Your task to perform on an android device: Open sound settings Image 0: 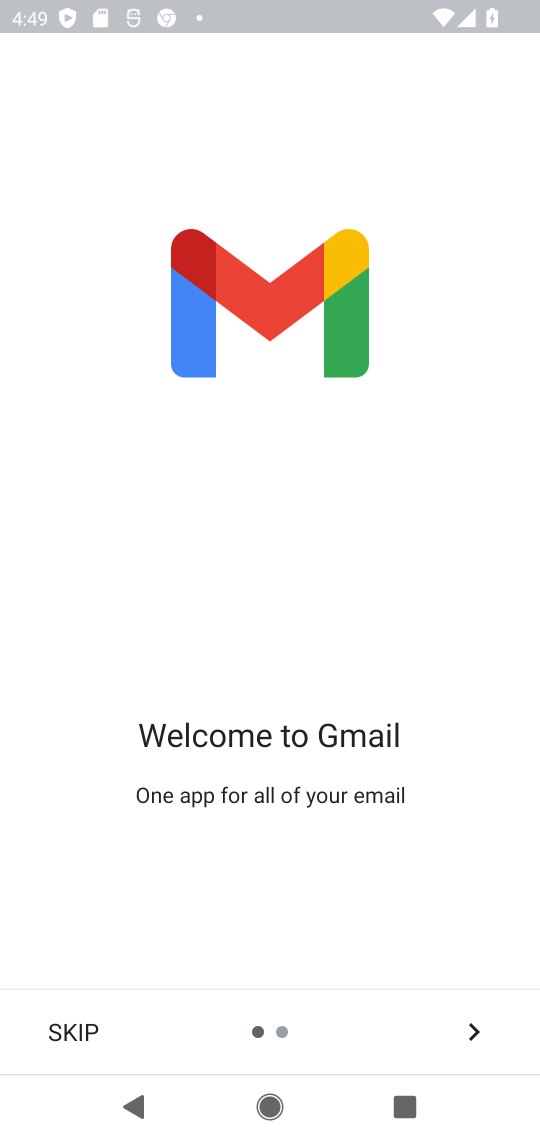
Step 0: press home button
Your task to perform on an android device: Open sound settings Image 1: 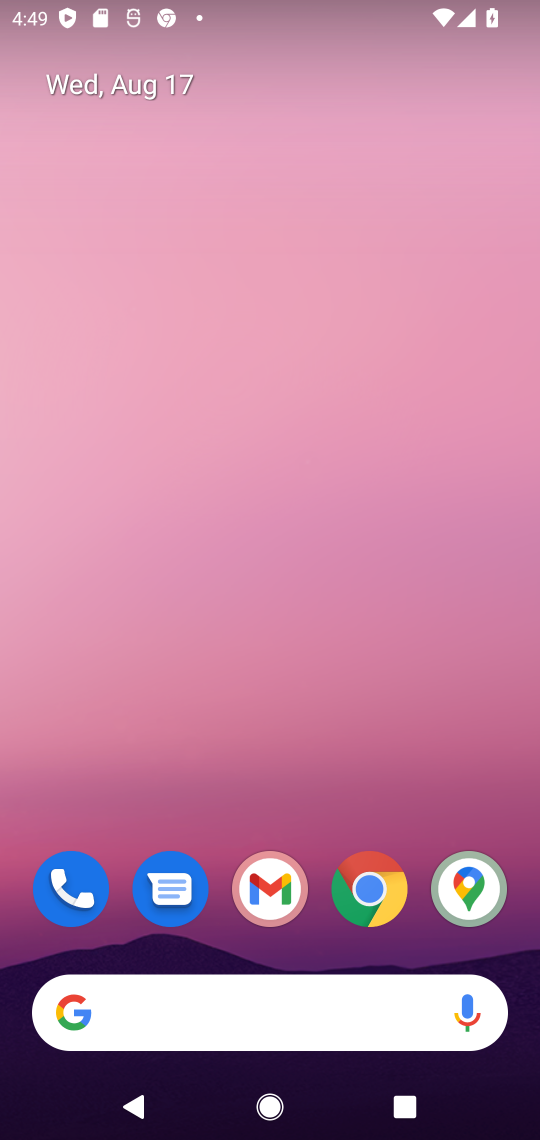
Step 1: drag from (266, 760) to (249, 103)
Your task to perform on an android device: Open sound settings Image 2: 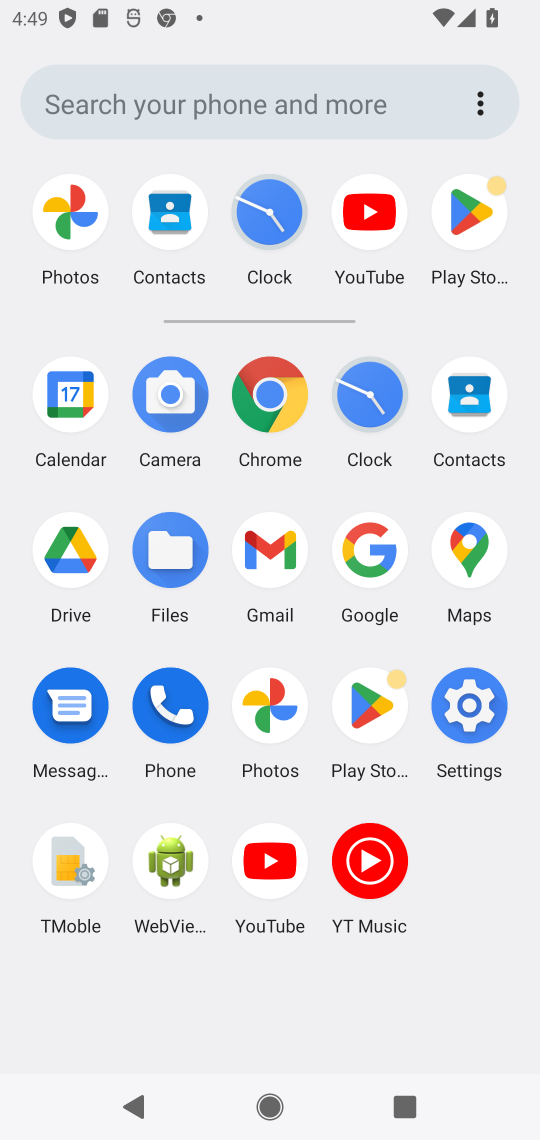
Step 2: click (476, 703)
Your task to perform on an android device: Open sound settings Image 3: 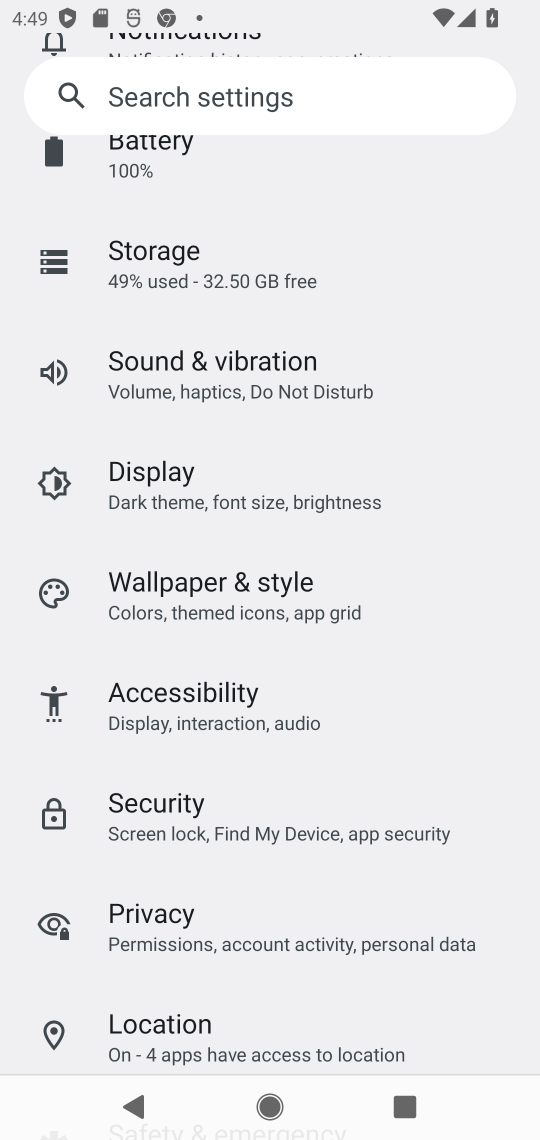
Step 3: click (242, 363)
Your task to perform on an android device: Open sound settings Image 4: 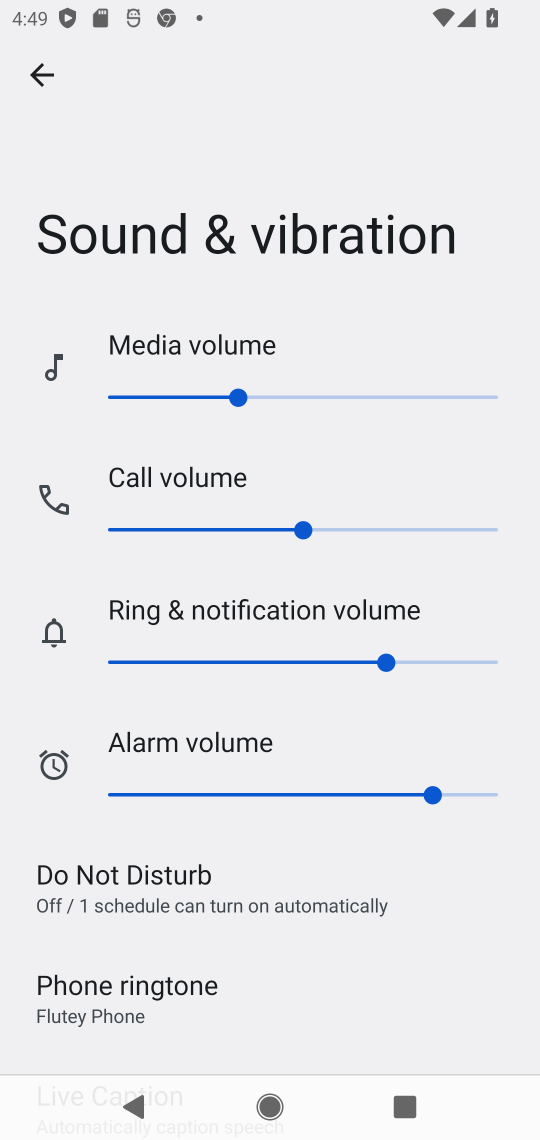
Step 4: task complete